Your task to perform on an android device: Open ESPN.com Image 0: 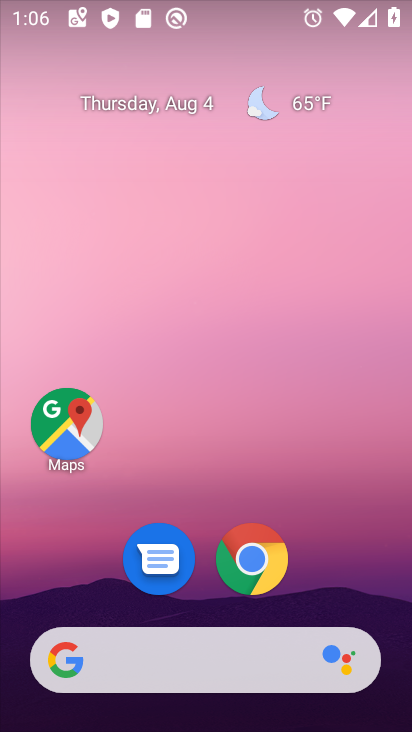
Step 0: click (257, 563)
Your task to perform on an android device: Open ESPN.com Image 1: 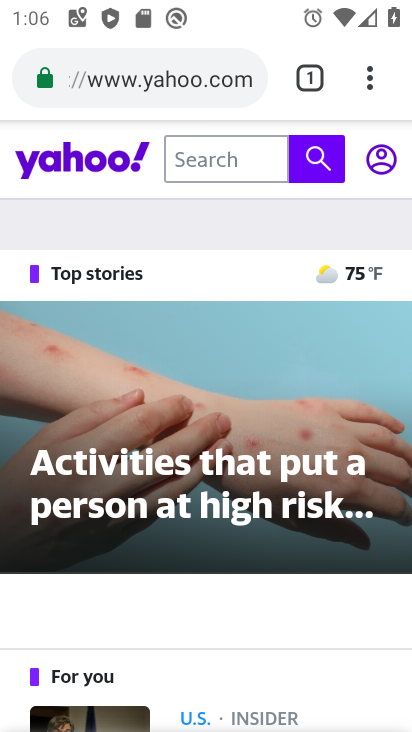
Step 1: click (232, 90)
Your task to perform on an android device: Open ESPN.com Image 2: 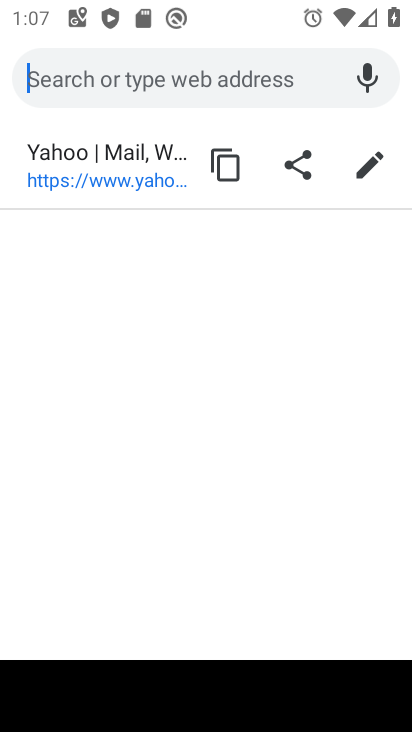
Step 2: type "ESPN.com"
Your task to perform on an android device: Open ESPN.com Image 3: 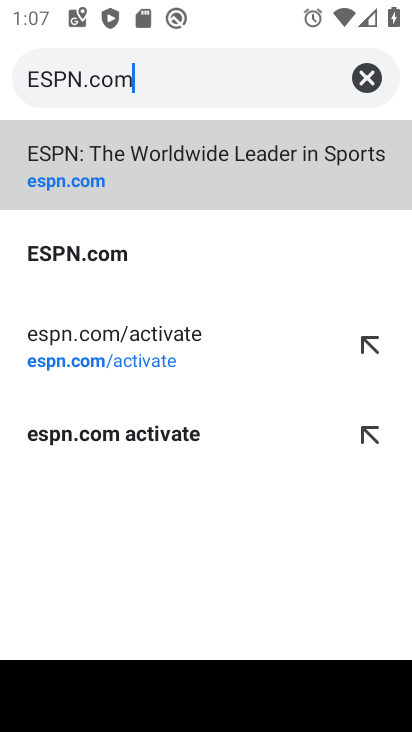
Step 3: click (44, 244)
Your task to perform on an android device: Open ESPN.com Image 4: 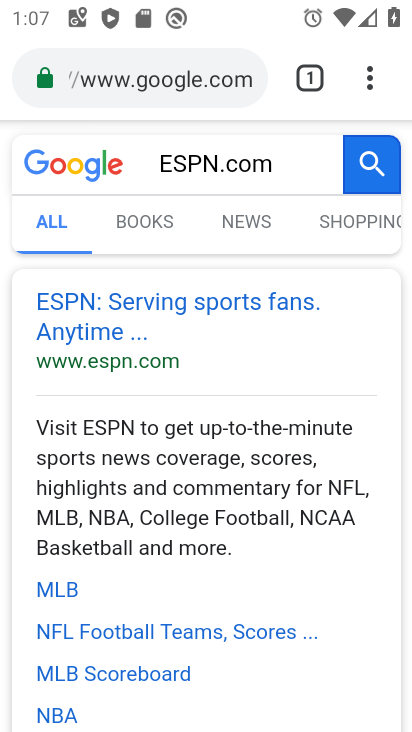
Step 4: click (71, 296)
Your task to perform on an android device: Open ESPN.com Image 5: 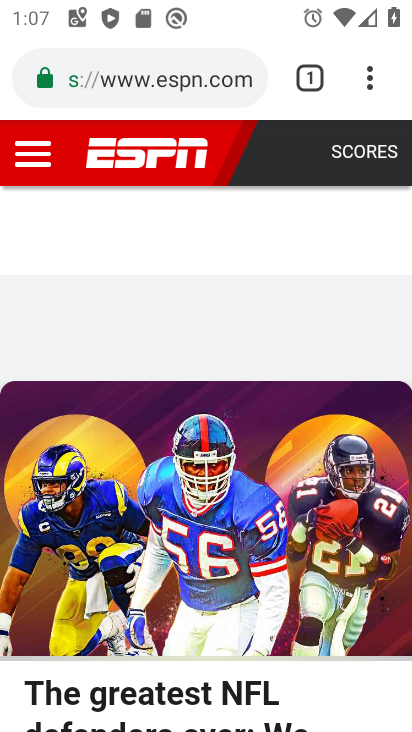
Step 5: task complete